Your task to perform on an android device: Play the last video I watched on Youtube Image 0: 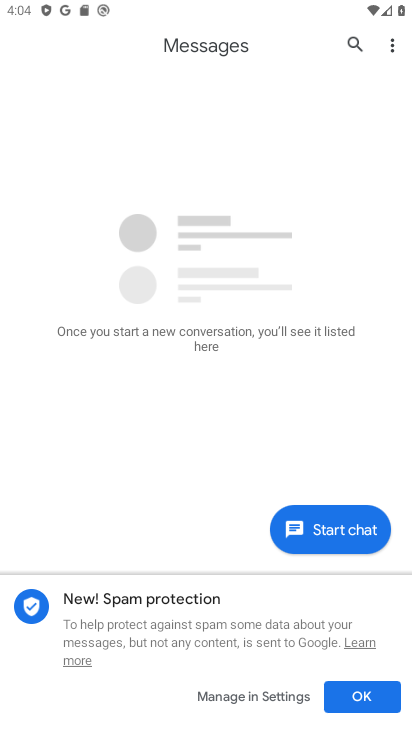
Step 0: press home button
Your task to perform on an android device: Play the last video I watched on Youtube Image 1: 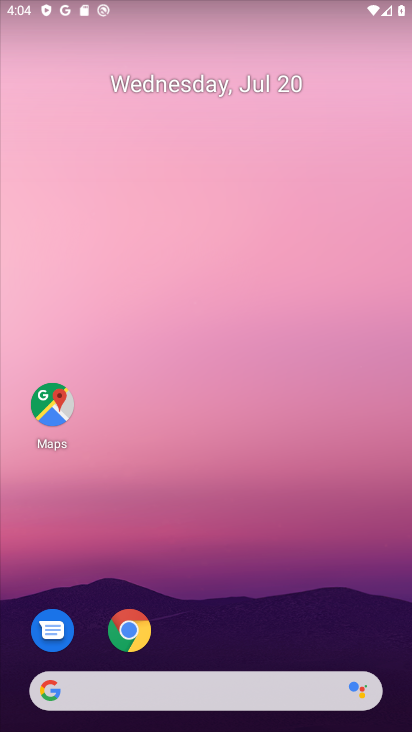
Step 1: drag from (143, 678) to (187, 172)
Your task to perform on an android device: Play the last video I watched on Youtube Image 2: 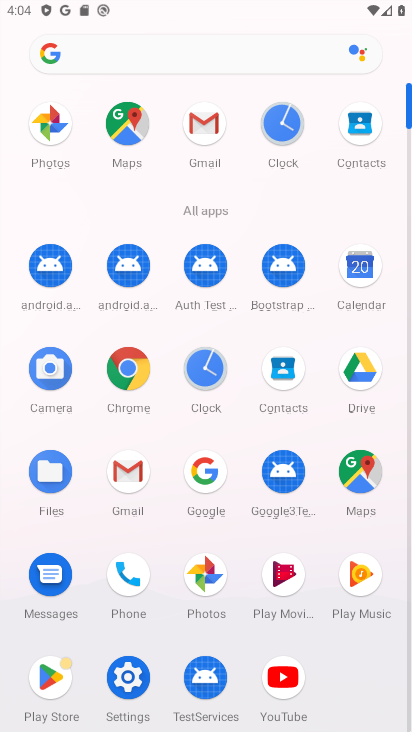
Step 2: click (285, 682)
Your task to perform on an android device: Play the last video I watched on Youtube Image 3: 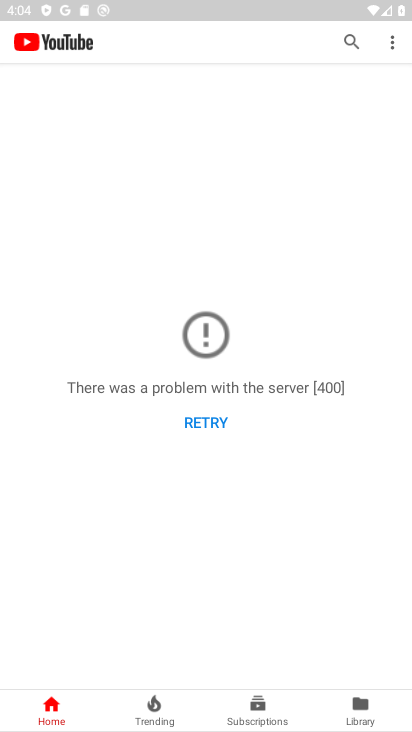
Step 3: click (348, 707)
Your task to perform on an android device: Play the last video I watched on Youtube Image 4: 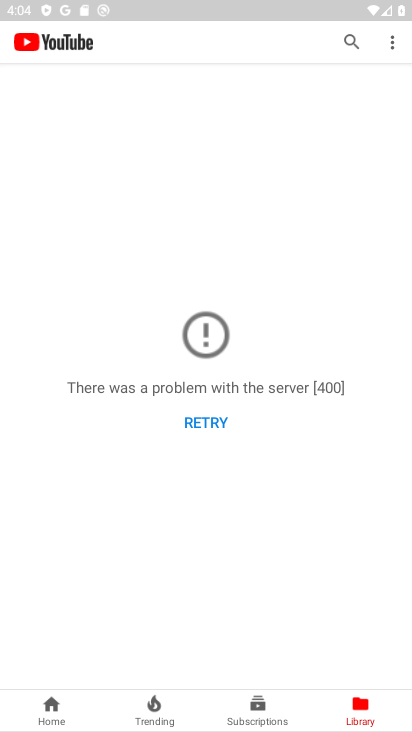
Step 4: task complete